Your task to perform on an android device: Search for seafood restaurants on Google Maps Image 0: 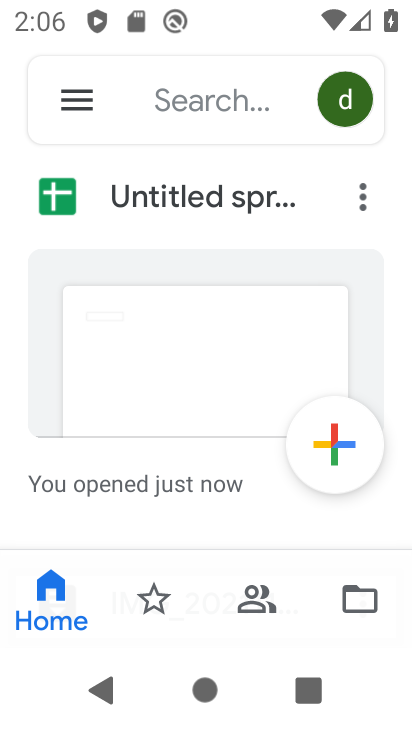
Step 0: press back button
Your task to perform on an android device: Search for seafood restaurants on Google Maps Image 1: 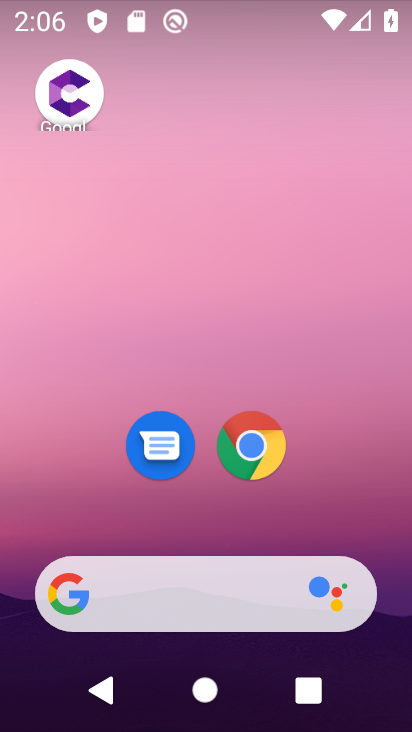
Step 1: drag from (163, 571) to (278, 16)
Your task to perform on an android device: Search for seafood restaurants on Google Maps Image 2: 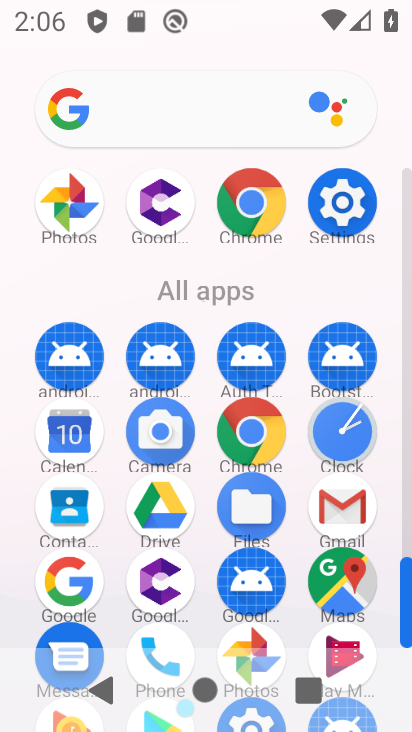
Step 2: click (351, 569)
Your task to perform on an android device: Search for seafood restaurants on Google Maps Image 3: 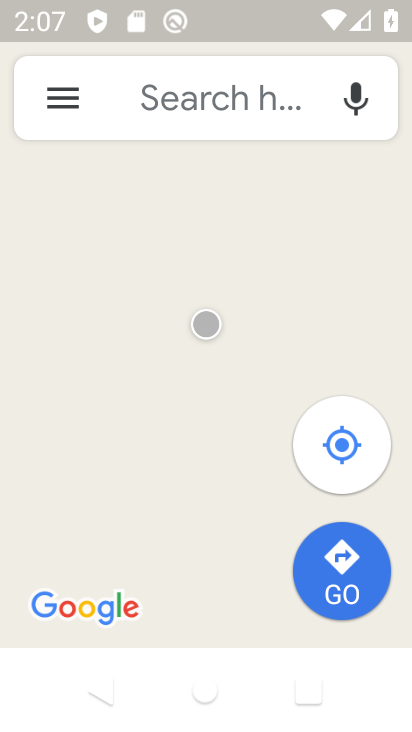
Step 3: click (168, 121)
Your task to perform on an android device: Search for seafood restaurants on Google Maps Image 4: 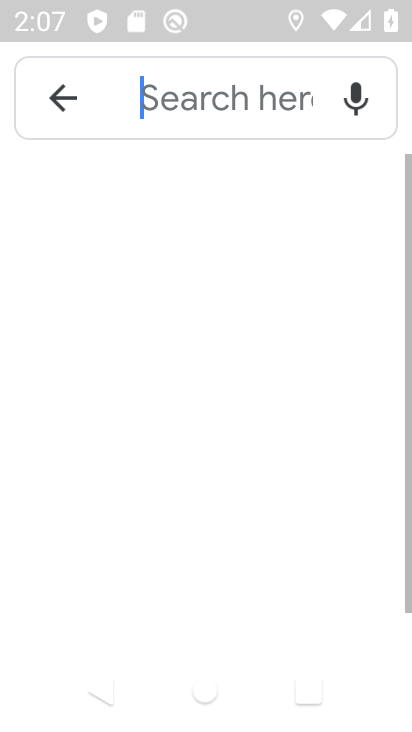
Step 4: click (193, 105)
Your task to perform on an android device: Search for seafood restaurants on Google Maps Image 5: 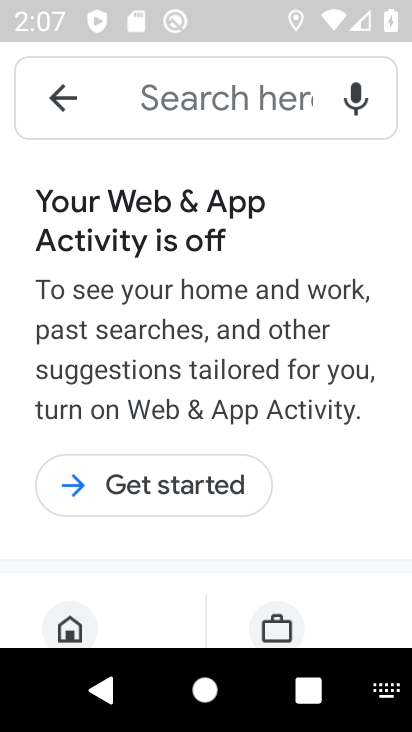
Step 5: type "seafood restarant"
Your task to perform on an android device: Search for seafood restaurants on Google Maps Image 6: 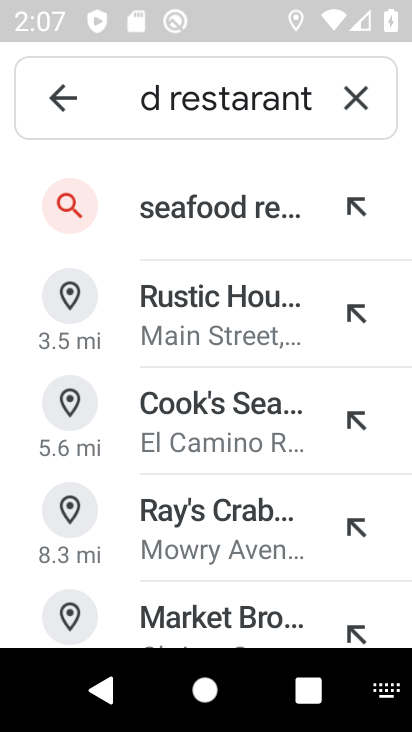
Step 6: click (228, 204)
Your task to perform on an android device: Search for seafood restaurants on Google Maps Image 7: 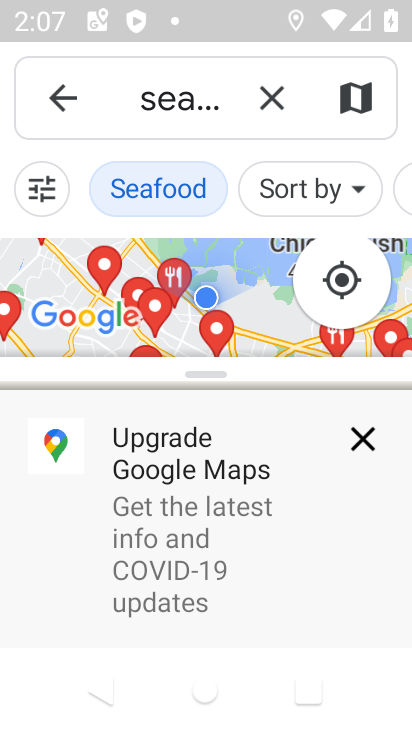
Step 7: task complete